Your task to perform on an android device: Open eBay Image 0: 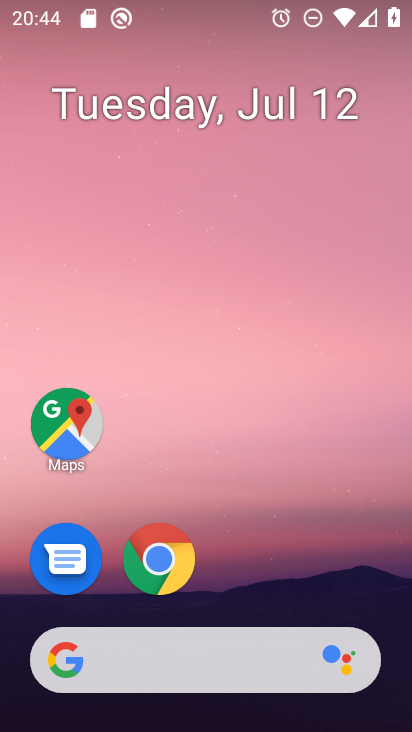
Step 0: drag from (350, 579) to (344, 85)
Your task to perform on an android device: Open eBay Image 1: 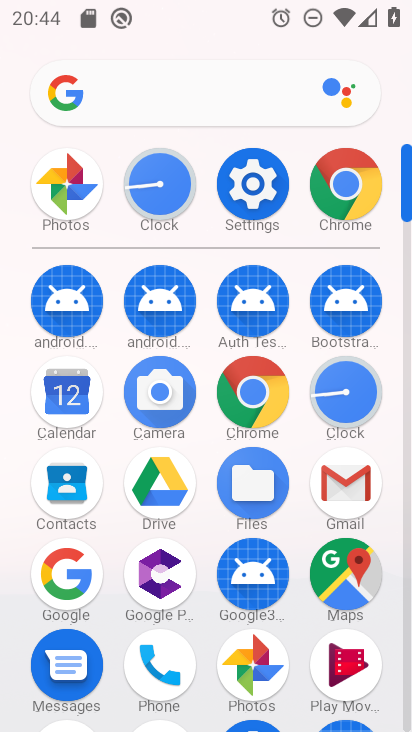
Step 1: click (250, 396)
Your task to perform on an android device: Open eBay Image 2: 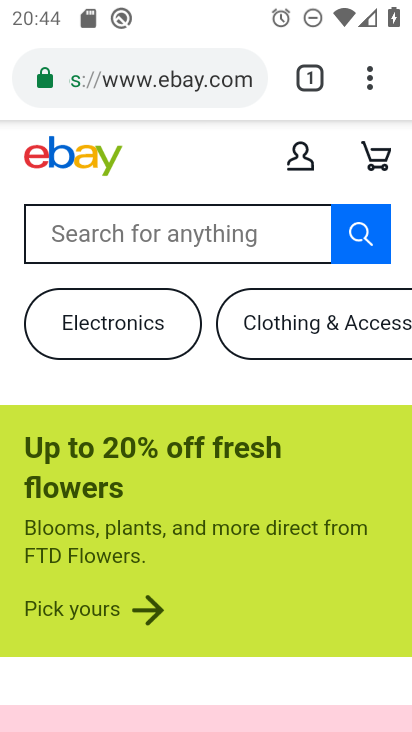
Step 2: task complete